Your task to perform on an android device: toggle priority inbox in the gmail app Image 0: 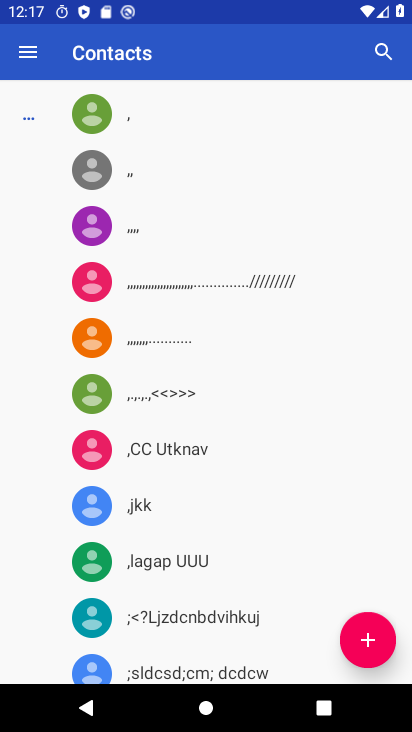
Step 0: press home button
Your task to perform on an android device: toggle priority inbox in the gmail app Image 1: 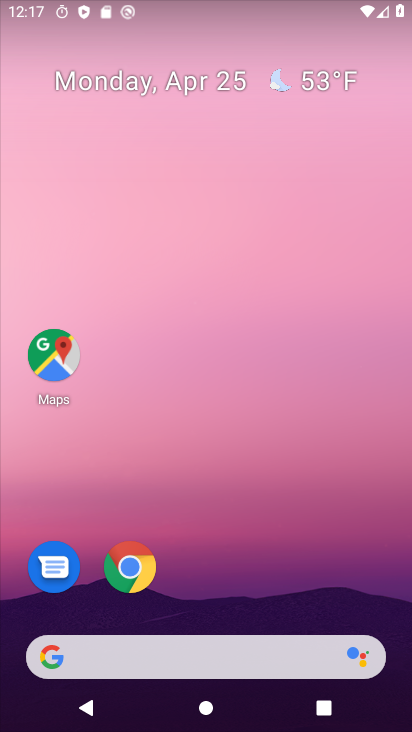
Step 1: drag from (349, 515) to (308, 116)
Your task to perform on an android device: toggle priority inbox in the gmail app Image 2: 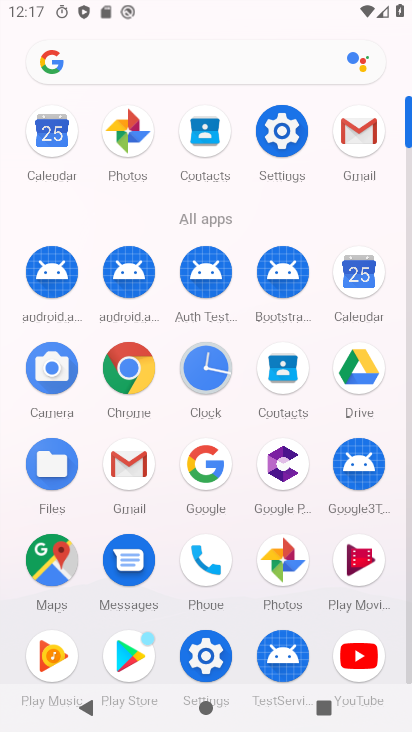
Step 2: click (352, 134)
Your task to perform on an android device: toggle priority inbox in the gmail app Image 3: 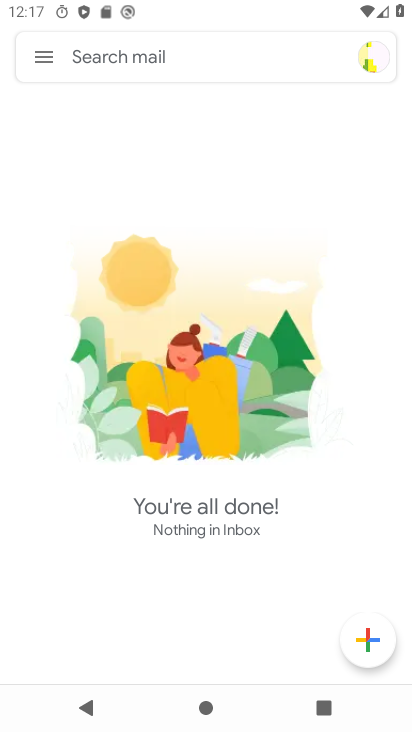
Step 3: click (48, 55)
Your task to perform on an android device: toggle priority inbox in the gmail app Image 4: 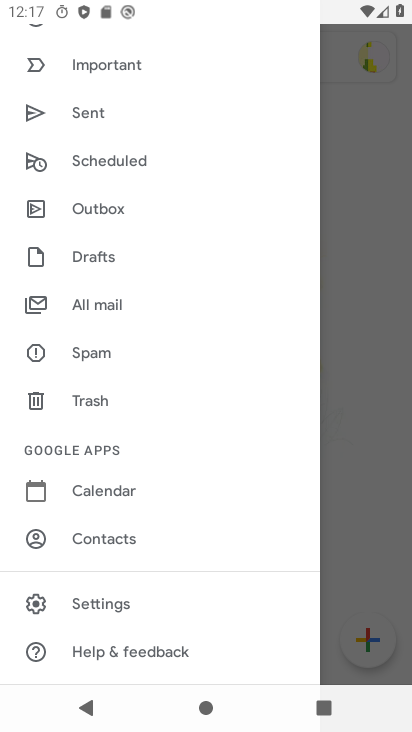
Step 4: click (94, 590)
Your task to perform on an android device: toggle priority inbox in the gmail app Image 5: 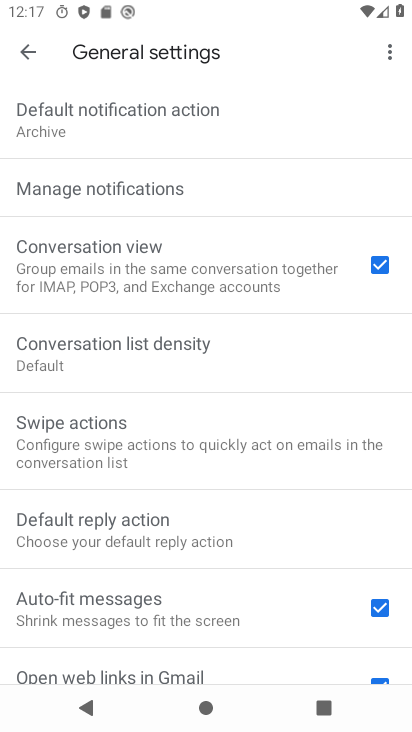
Step 5: click (21, 49)
Your task to perform on an android device: toggle priority inbox in the gmail app Image 6: 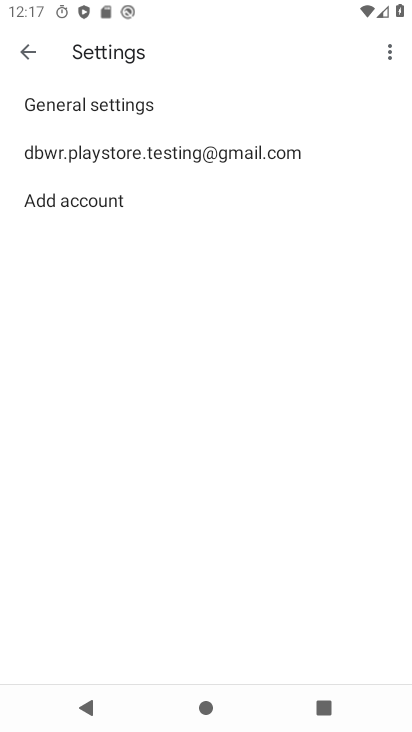
Step 6: click (82, 147)
Your task to perform on an android device: toggle priority inbox in the gmail app Image 7: 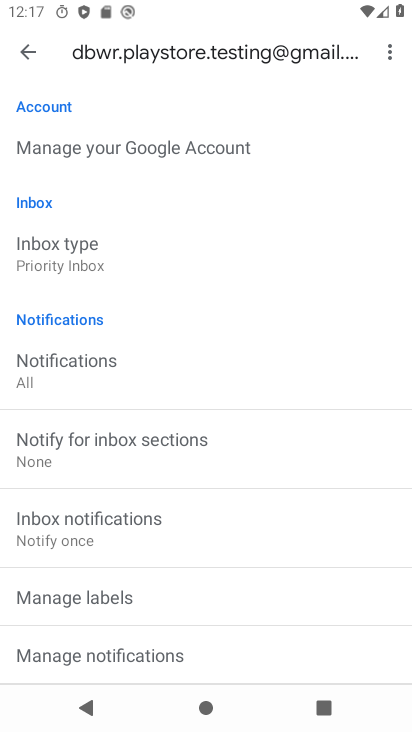
Step 7: click (85, 249)
Your task to perform on an android device: toggle priority inbox in the gmail app Image 8: 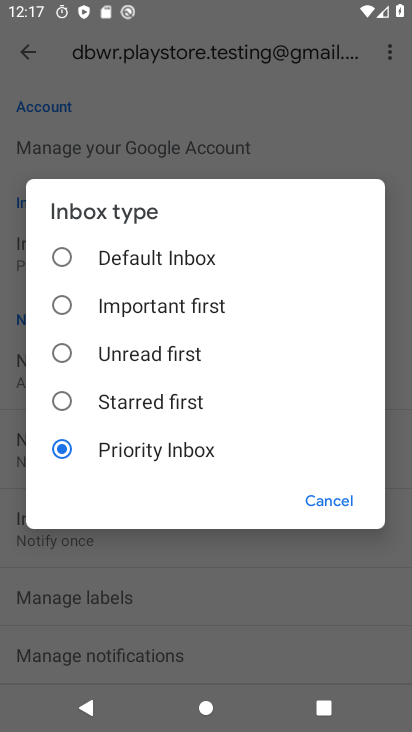
Step 8: click (85, 249)
Your task to perform on an android device: toggle priority inbox in the gmail app Image 9: 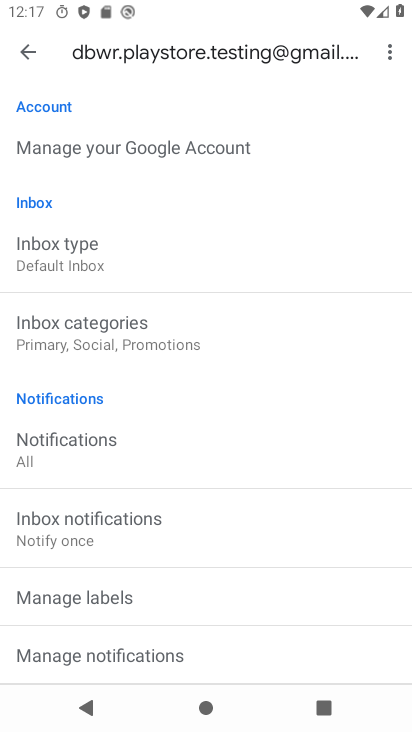
Step 9: task complete